Your task to perform on an android device: delete the emails in spam in the gmail app Image 0: 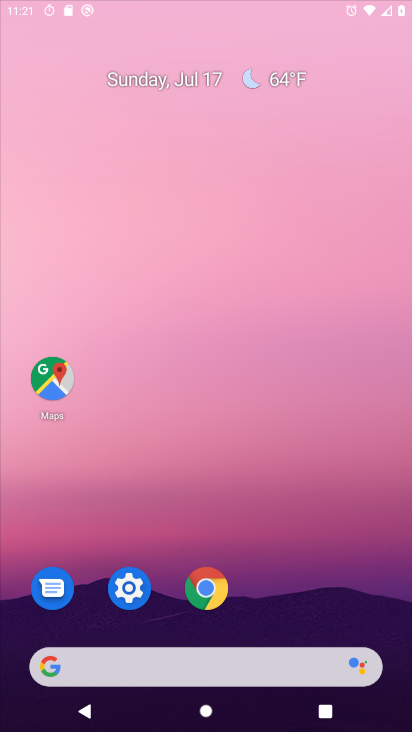
Step 0: drag from (311, 668) to (396, 32)
Your task to perform on an android device: delete the emails in spam in the gmail app Image 1: 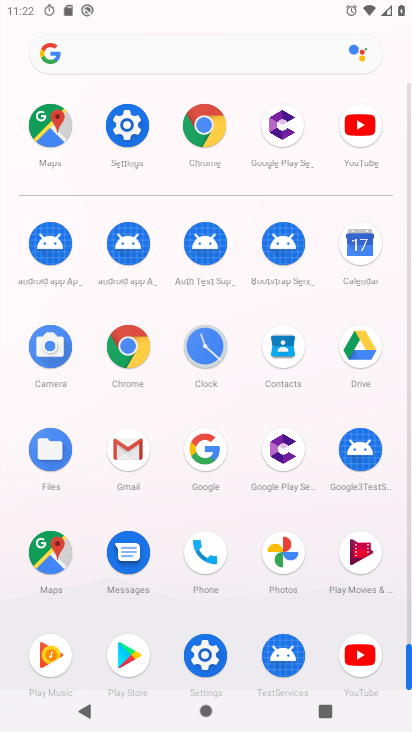
Step 1: click (121, 460)
Your task to perform on an android device: delete the emails in spam in the gmail app Image 2: 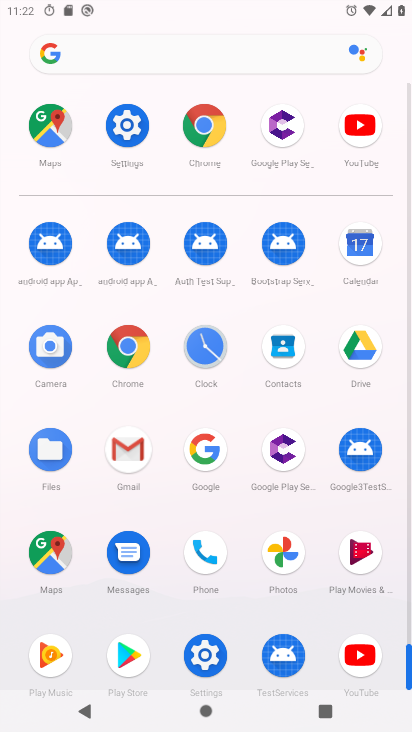
Step 2: click (122, 458)
Your task to perform on an android device: delete the emails in spam in the gmail app Image 3: 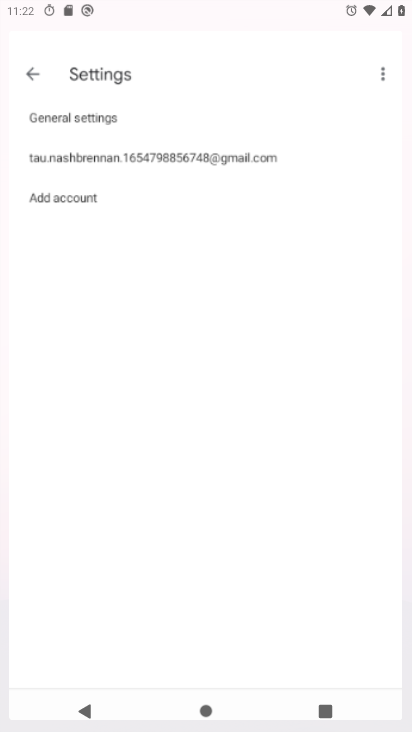
Step 3: click (122, 458)
Your task to perform on an android device: delete the emails in spam in the gmail app Image 4: 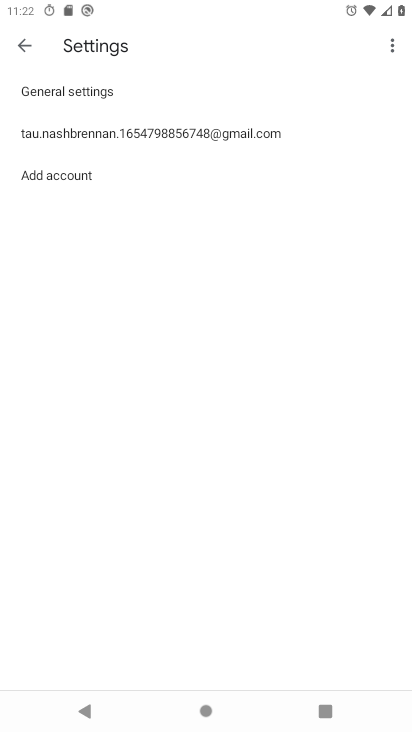
Step 4: click (104, 135)
Your task to perform on an android device: delete the emails in spam in the gmail app Image 5: 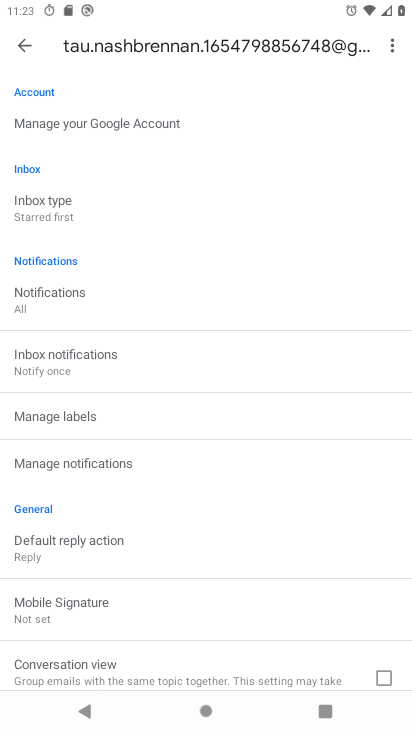
Step 5: click (24, 39)
Your task to perform on an android device: delete the emails in spam in the gmail app Image 6: 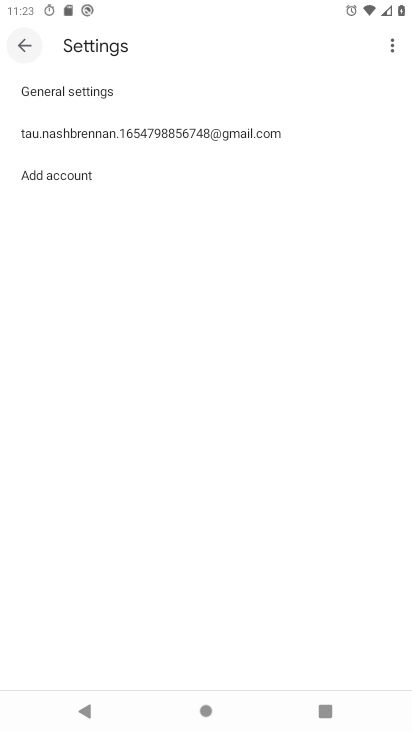
Step 6: click (24, 38)
Your task to perform on an android device: delete the emails in spam in the gmail app Image 7: 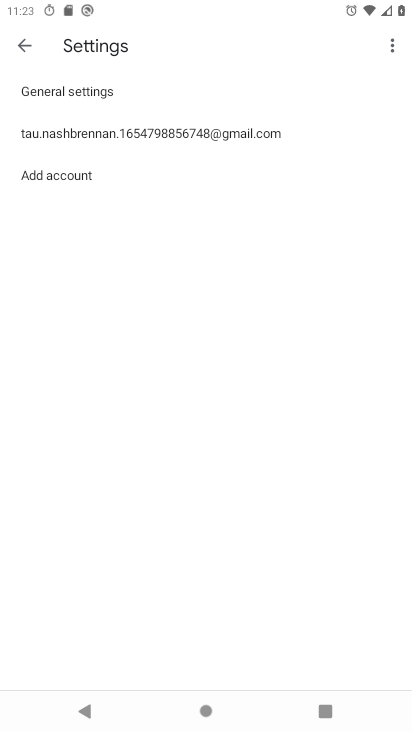
Step 7: click (24, 37)
Your task to perform on an android device: delete the emails in spam in the gmail app Image 8: 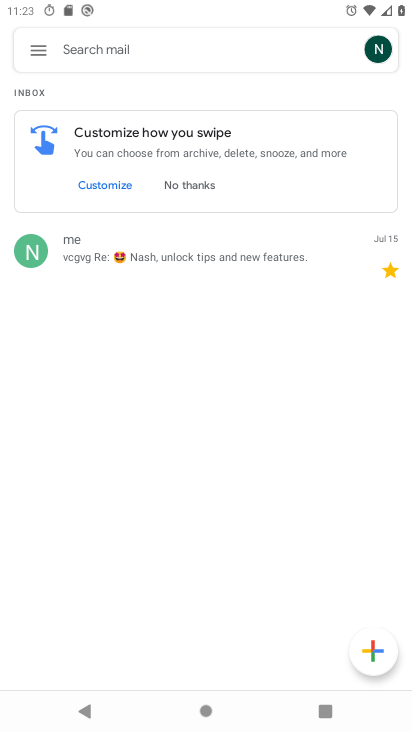
Step 8: click (36, 37)
Your task to perform on an android device: delete the emails in spam in the gmail app Image 9: 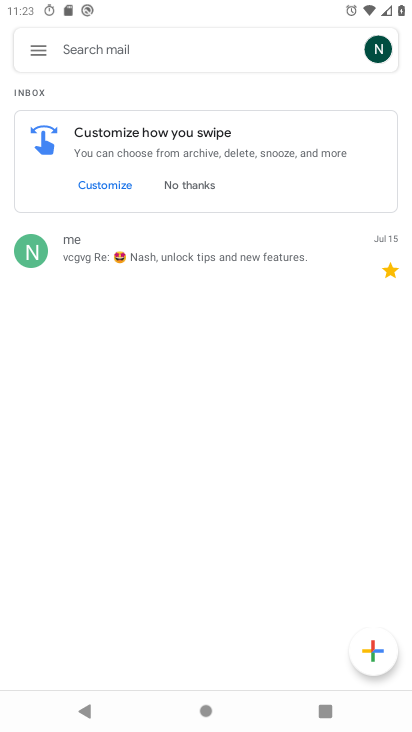
Step 9: drag from (36, 37) to (48, 545)
Your task to perform on an android device: delete the emails in spam in the gmail app Image 10: 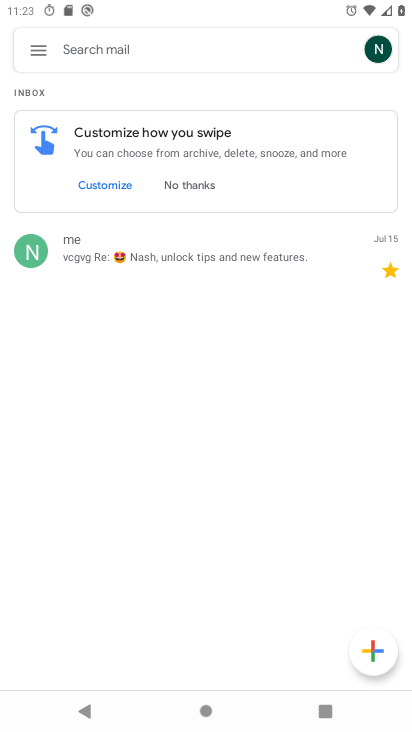
Step 10: click (36, 53)
Your task to perform on an android device: delete the emails in spam in the gmail app Image 11: 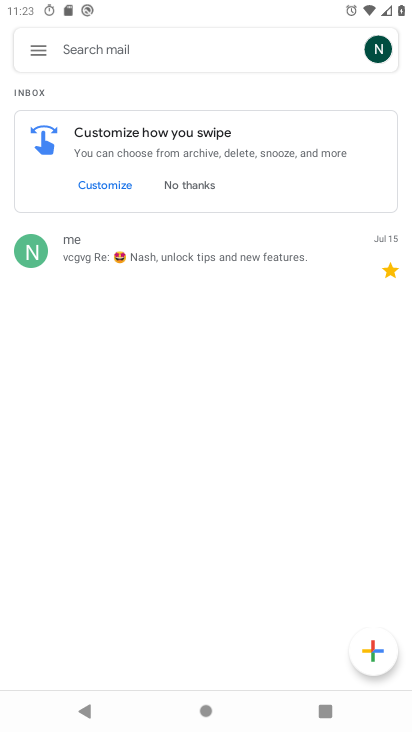
Step 11: click (36, 53)
Your task to perform on an android device: delete the emails in spam in the gmail app Image 12: 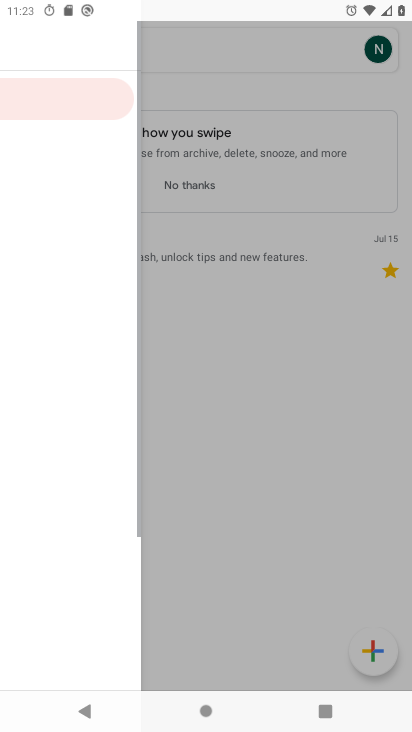
Step 12: click (36, 53)
Your task to perform on an android device: delete the emails in spam in the gmail app Image 13: 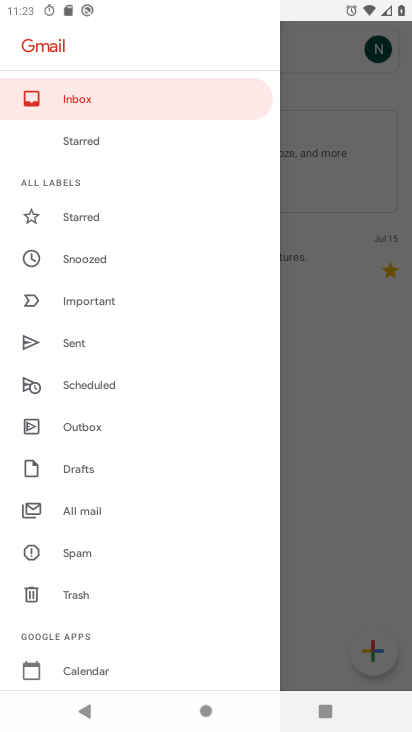
Step 13: click (83, 561)
Your task to perform on an android device: delete the emails in spam in the gmail app Image 14: 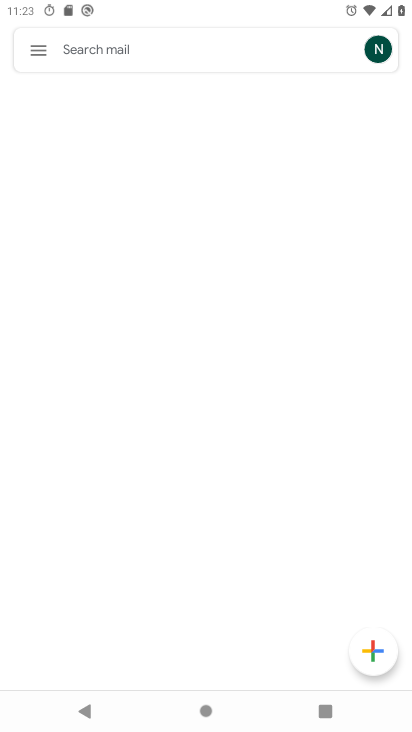
Step 14: click (80, 554)
Your task to perform on an android device: delete the emails in spam in the gmail app Image 15: 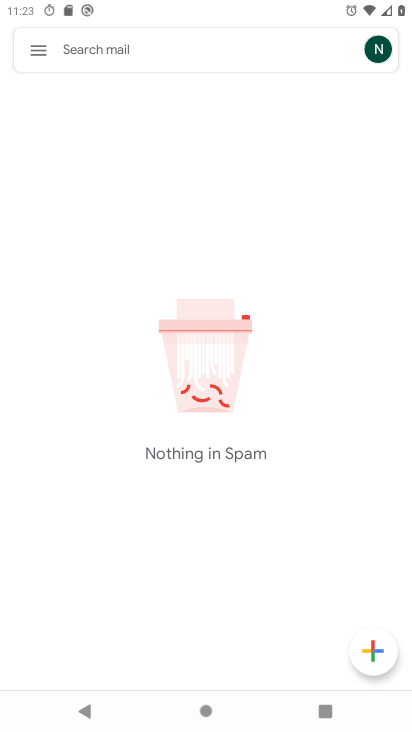
Step 15: task complete